Your task to perform on an android device: turn on location history Image 0: 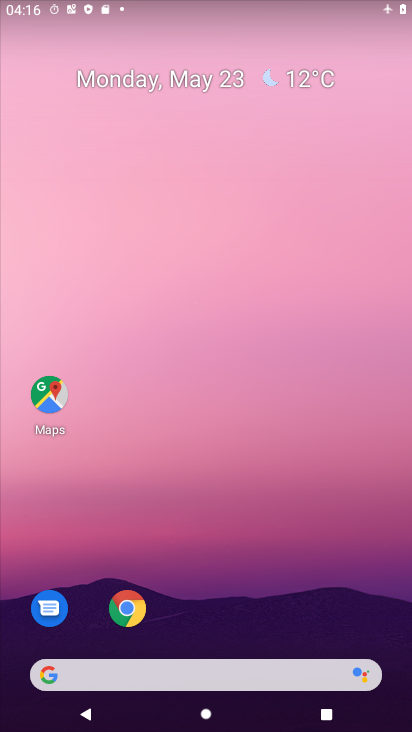
Step 0: drag from (314, 525) to (271, 50)
Your task to perform on an android device: turn on location history Image 1: 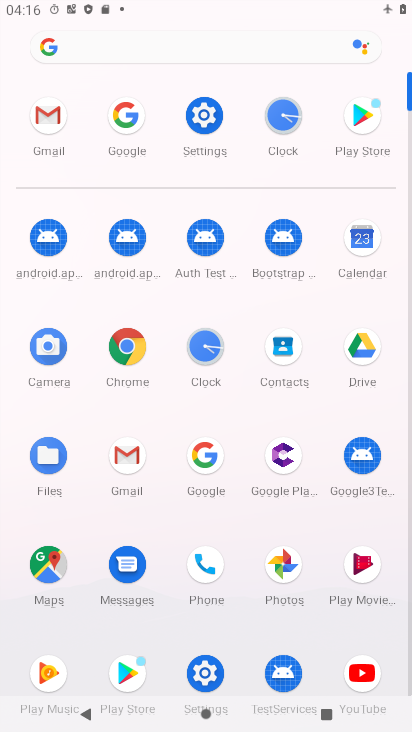
Step 1: click (215, 138)
Your task to perform on an android device: turn on location history Image 2: 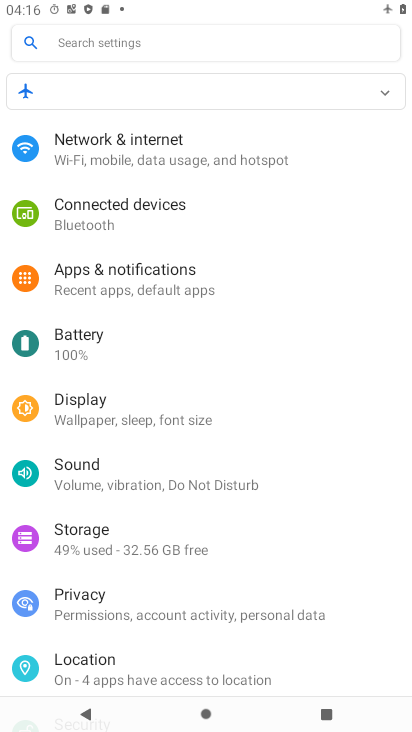
Step 2: click (176, 662)
Your task to perform on an android device: turn on location history Image 3: 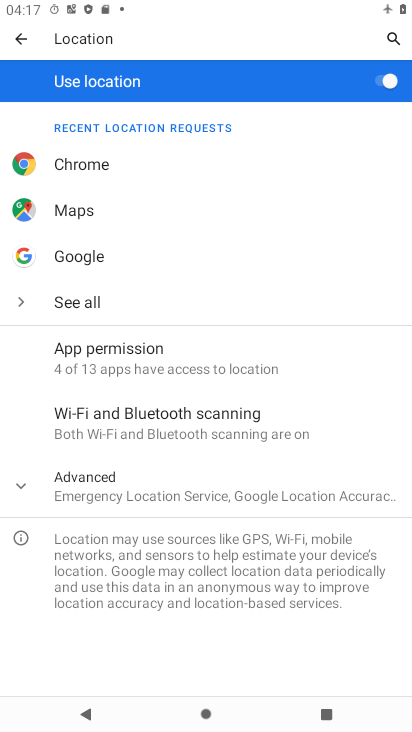
Step 3: click (225, 484)
Your task to perform on an android device: turn on location history Image 4: 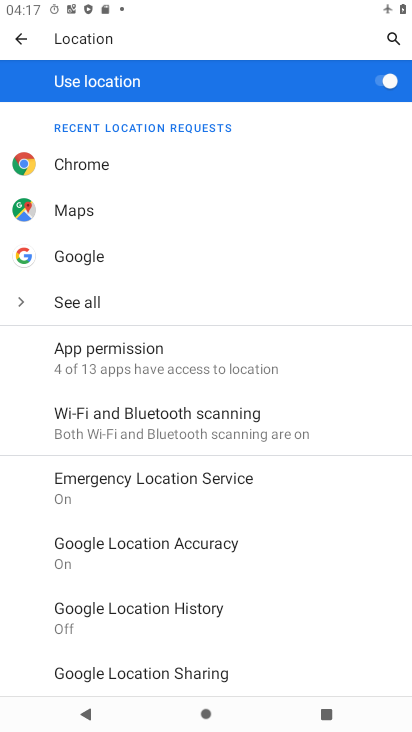
Step 4: click (231, 615)
Your task to perform on an android device: turn on location history Image 5: 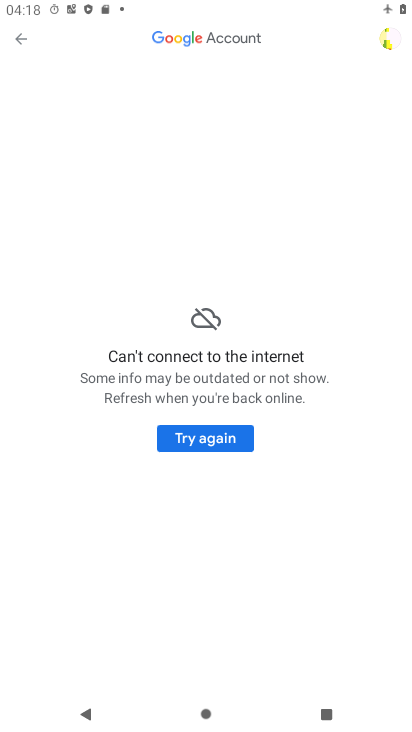
Step 5: task complete